Your task to perform on an android device: toggle translation in the chrome app Image 0: 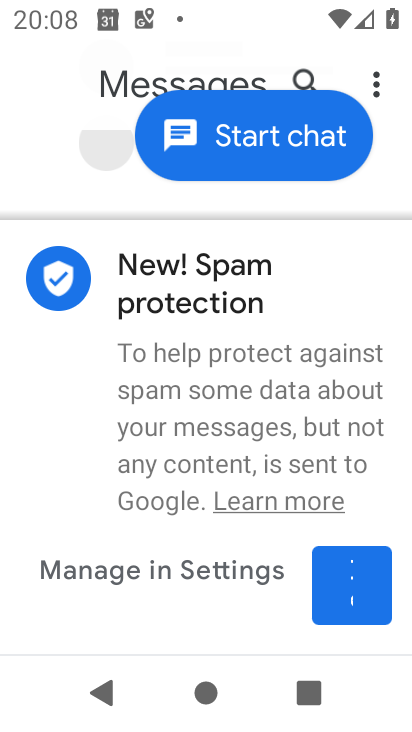
Step 0: press home button
Your task to perform on an android device: toggle translation in the chrome app Image 1: 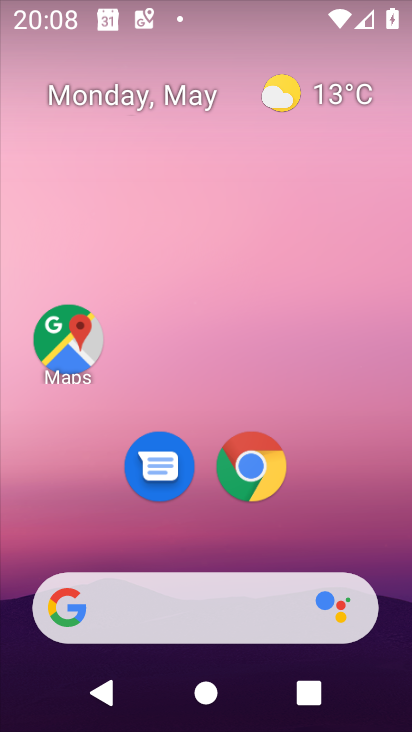
Step 1: drag from (325, 535) to (318, 226)
Your task to perform on an android device: toggle translation in the chrome app Image 2: 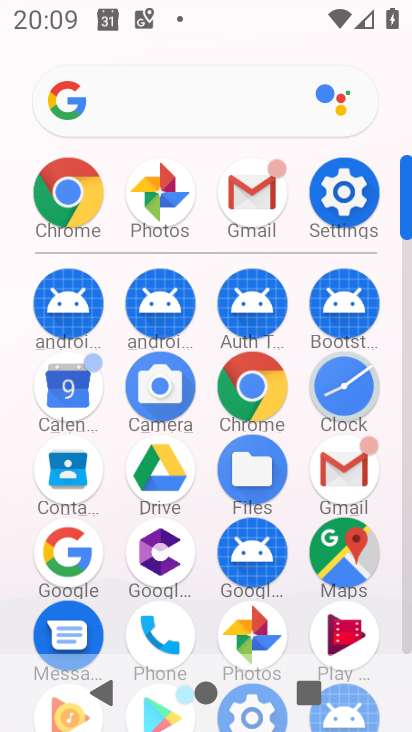
Step 2: click (252, 380)
Your task to perform on an android device: toggle translation in the chrome app Image 3: 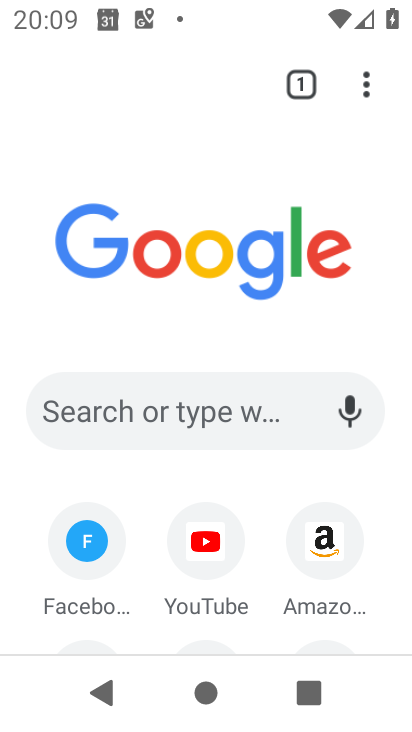
Step 3: click (358, 87)
Your task to perform on an android device: toggle translation in the chrome app Image 4: 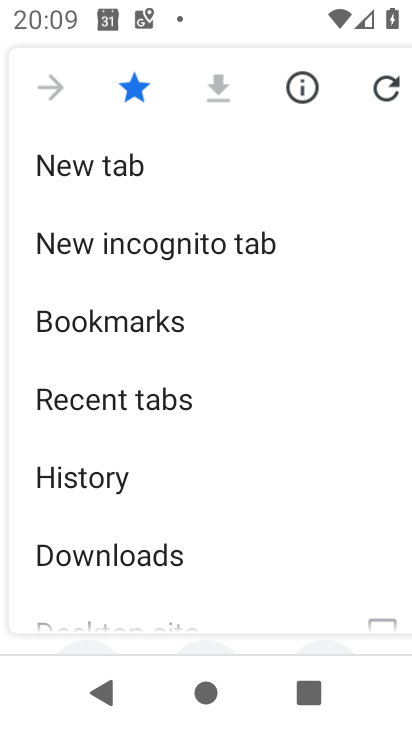
Step 4: drag from (198, 595) to (312, 273)
Your task to perform on an android device: toggle translation in the chrome app Image 5: 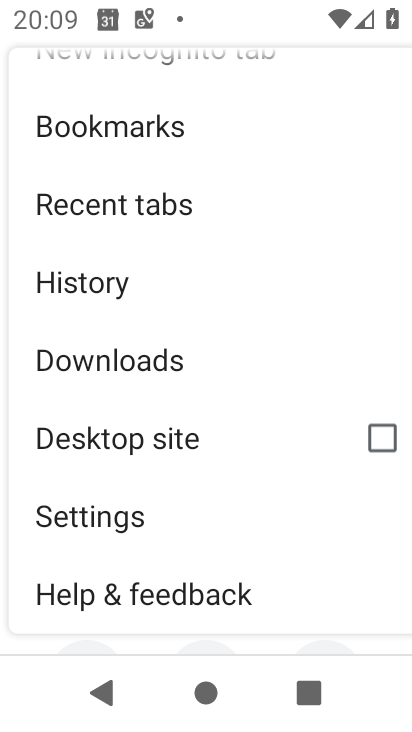
Step 5: click (159, 507)
Your task to perform on an android device: toggle translation in the chrome app Image 6: 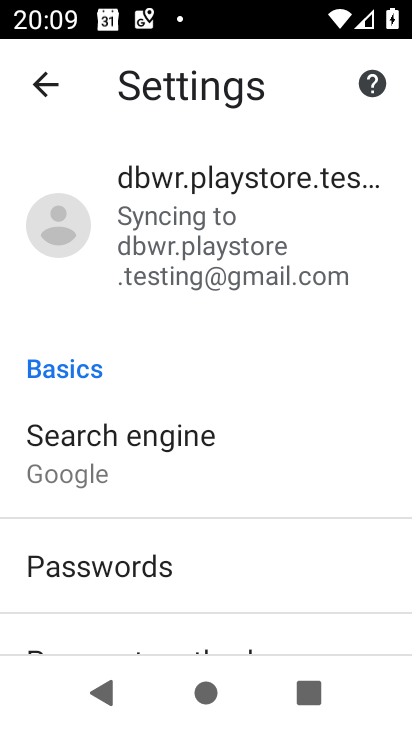
Step 6: drag from (262, 594) to (289, 154)
Your task to perform on an android device: toggle translation in the chrome app Image 7: 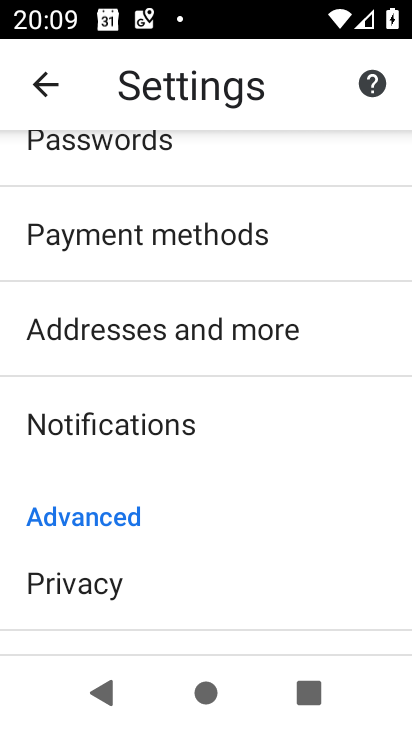
Step 7: drag from (234, 561) to (319, 241)
Your task to perform on an android device: toggle translation in the chrome app Image 8: 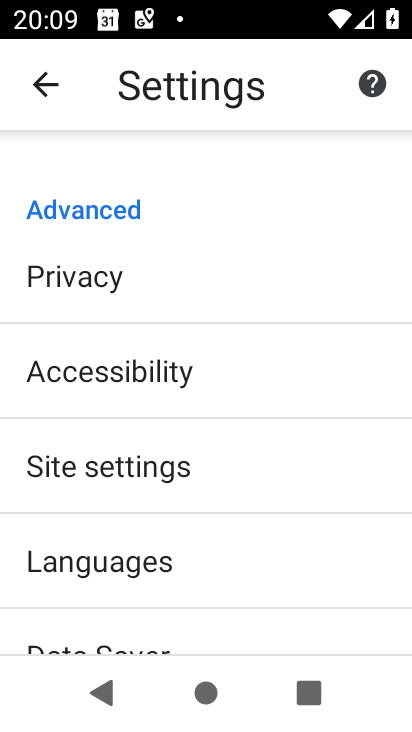
Step 8: drag from (184, 566) to (221, 436)
Your task to perform on an android device: toggle translation in the chrome app Image 9: 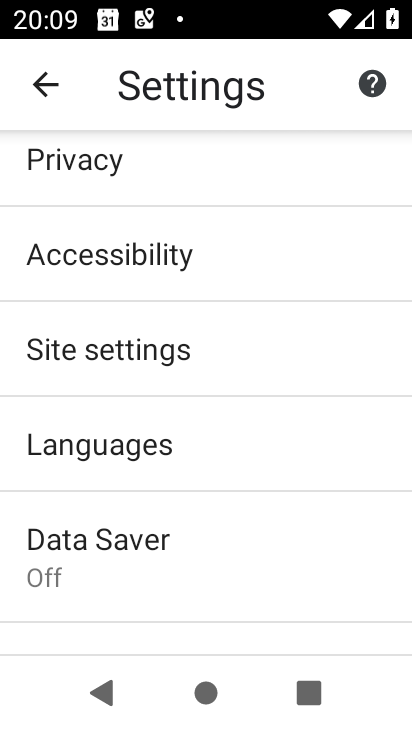
Step 9: click (106, 442)
Your task to perform on an android device: toggle translation in the chrome app Image 10: 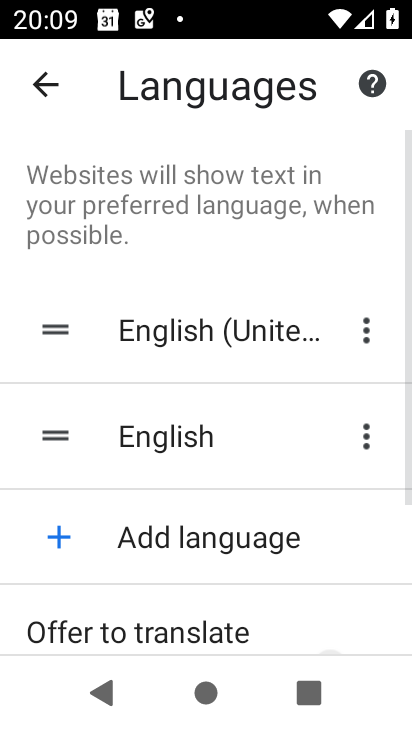
Step 10: drag from (271, 643) to (326, 306)
Your task to perform on an android device: toggle translation in the chrome app Image 11: 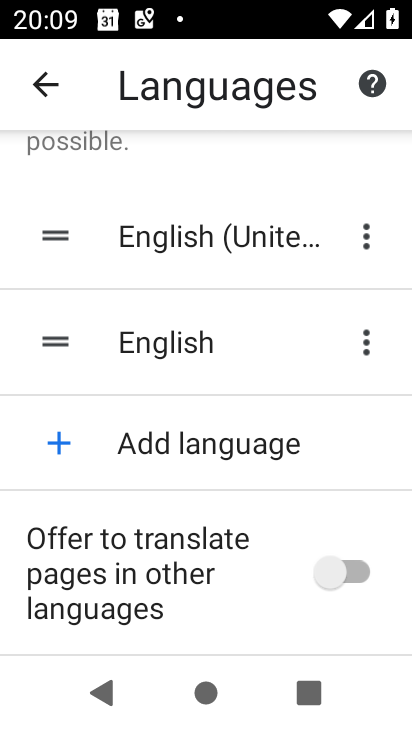
Step 11: click (339, 576)
Your task to perform on an android device: toggle translation in the chrome app Image 12: 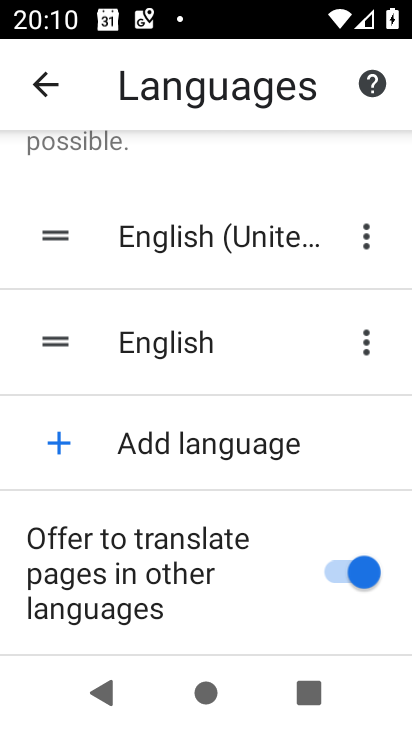
Step 12: task complete